Your task to perform on an android device: Open Youtube and go to the subscriptions tab Image 0: 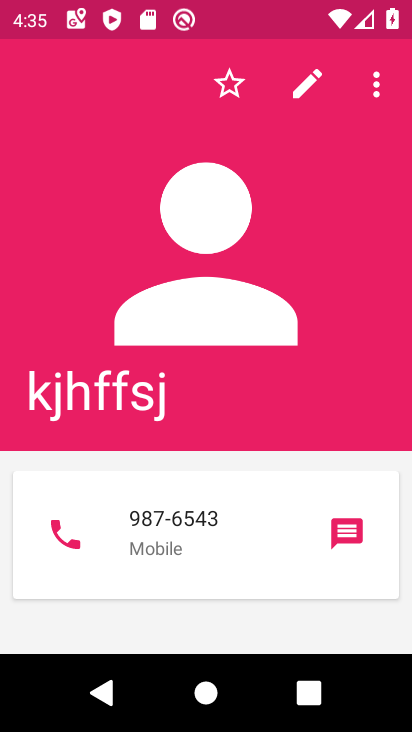
Step 0: press home button
Your task to perform on an android device: Open Youtube and go to the subscriptions tab Image 1: 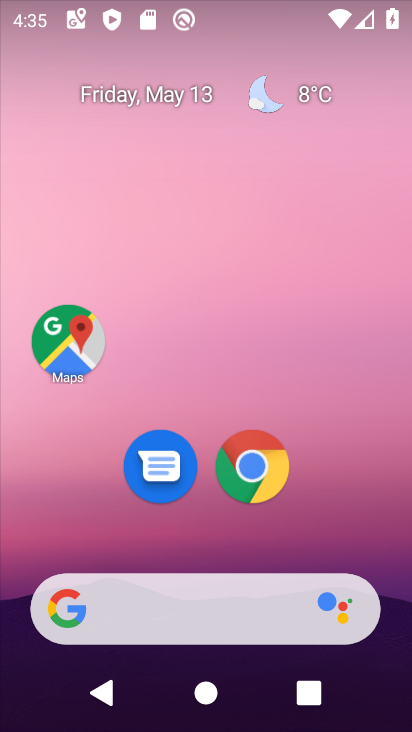
Step 1: drag from (396, 651) to (369, 101)
Your task to perform on an android device: Open Youtube and go to the subscriptions tab Image 2: 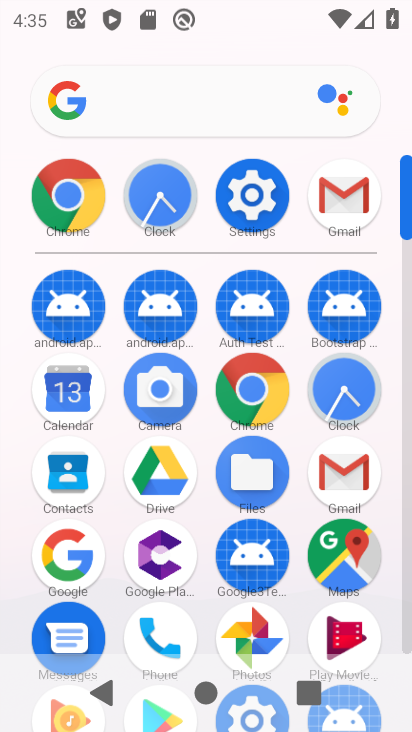
Step 2: click (409, 638)
Your task to perform on an android device: Open Youtube and go to the subscriptions tab Image 3: 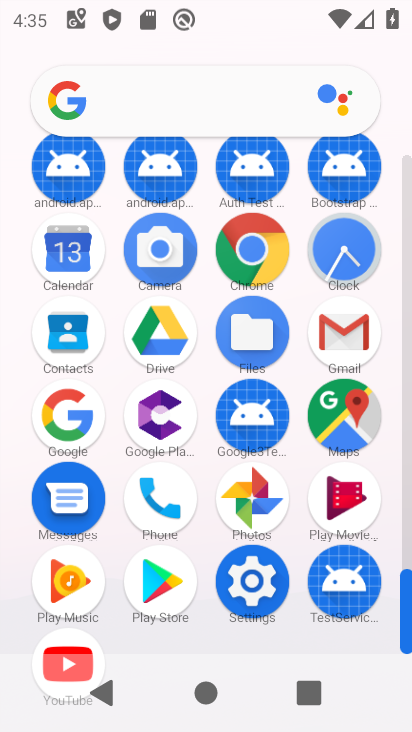
Step 3: click (65, 639)
Your task to perform on an android device: Open Youtube and go to the subscriptions tab Image 4: 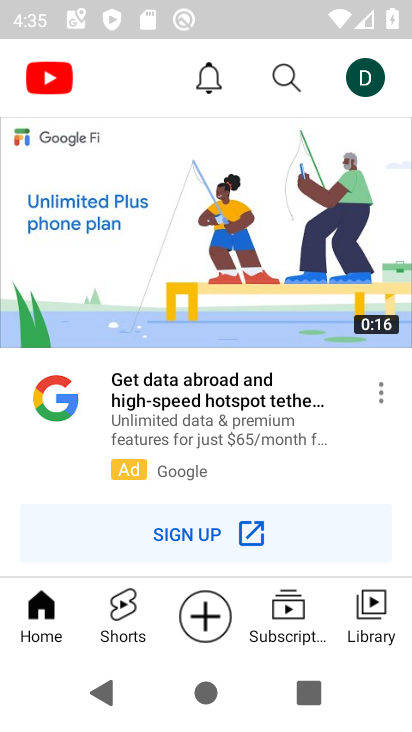
Step 4: click (294, 606)
Your task to perform on an android device: Open Youtube and go to the subscriptions tab Image 5: 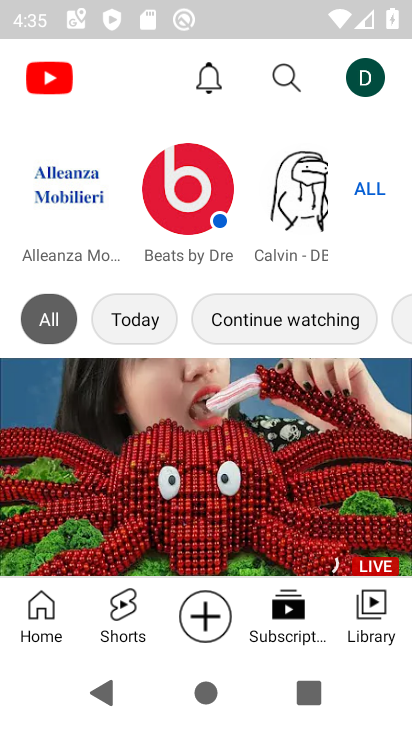
Step 5: task complete